Your task to perform on an android device: Go to Maps Image 0: 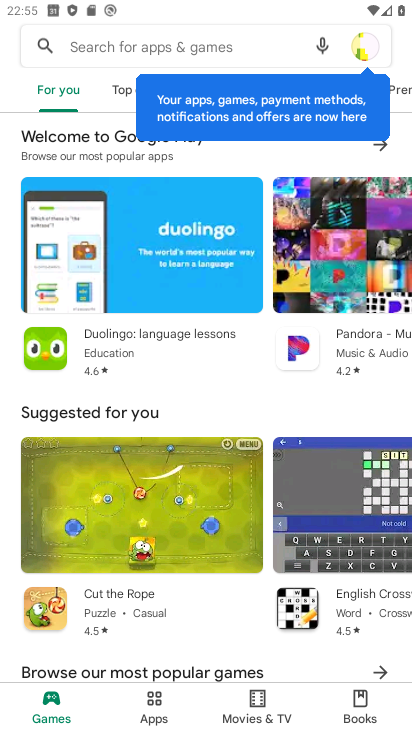
Step 0: press home button
Your task to perform on an android device: Go to Maps Image 1: 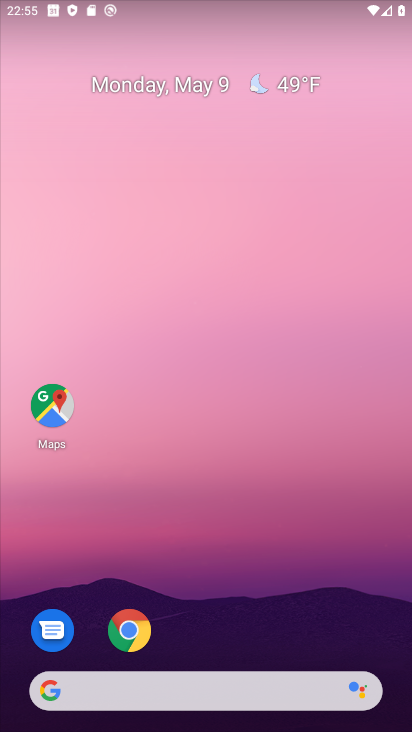
Step 1: click (64, 416)
Your task to perform on an android device: Go to Maps Image 2: 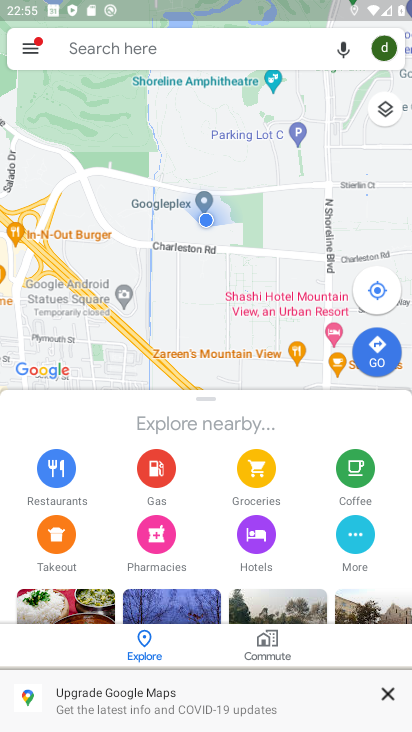
Step 2: task complete